Your task to perform on an android device: turn off improve location accuracy Image 0: 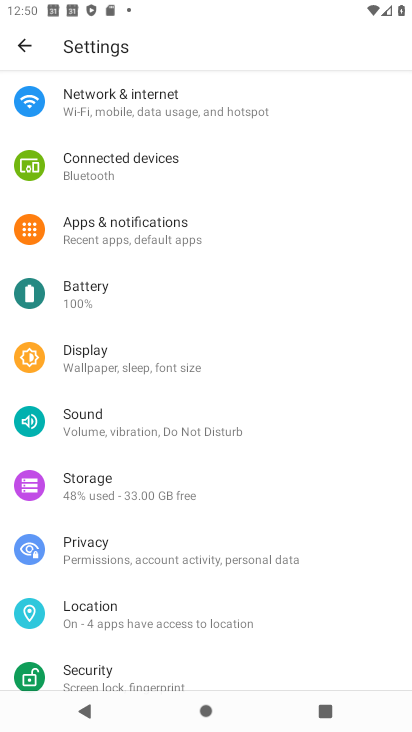
Step 0: task complete